Your task to perform on an android device: turn on the 24-hour format for clock Image 0: 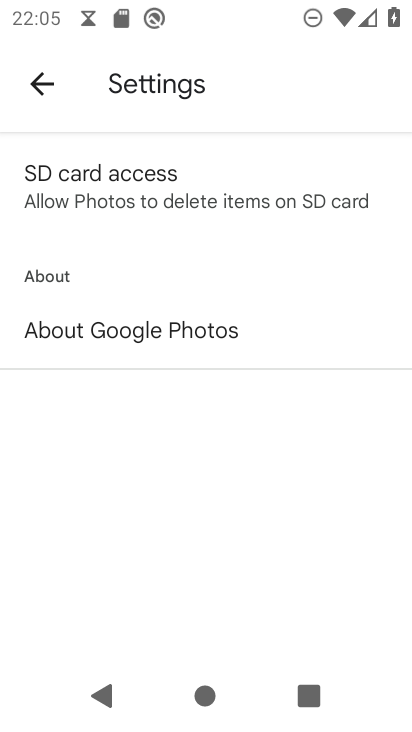
Step 0: press home button
Your task to perform on an android device: turn on the 24-hour format for clock Image 1: 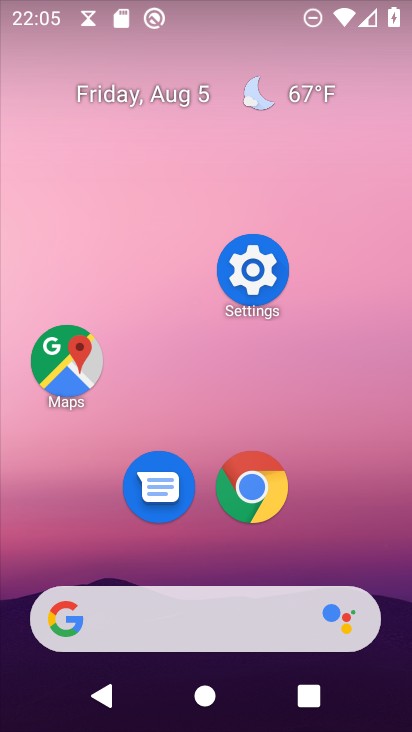
Step 1: drag from (184, 621) to (249, 74)
Your task to perform on an android device: turn on the 24-hour format for clock Image 2: 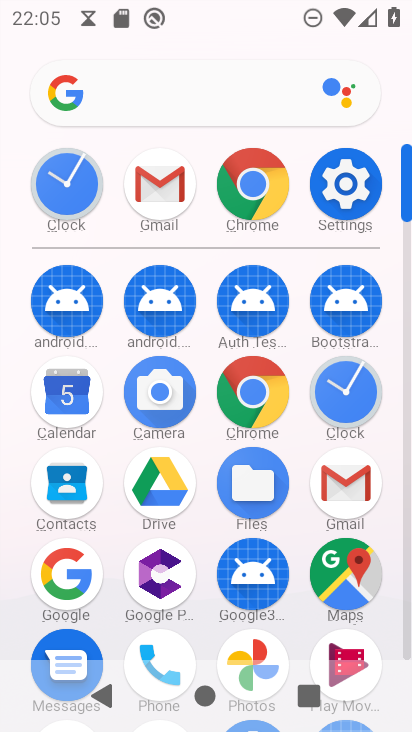
Step 2: click (352, 398)
Your task to perform on an android device: turn on the 24-hour format for clock Image 3: 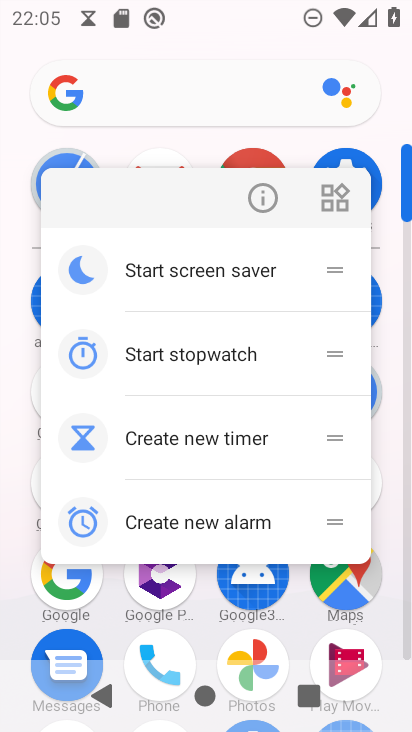
Step 3: click (374, 388)
Your task to perform on an android device: turn on the 24-hour format for clock Image 4: 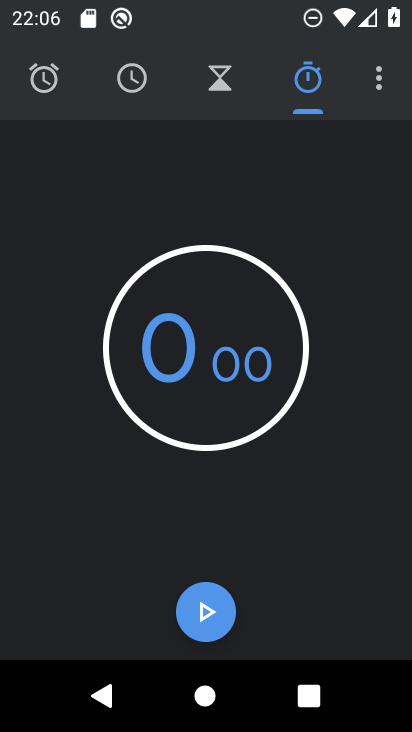
Step 4: click (382, 77)
Your task to perform on an android device: turn on the 24-hour format for clock Image 5: 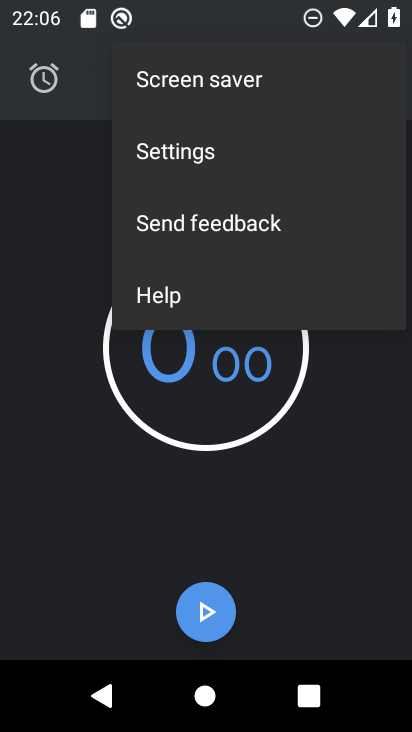
Step 5: click (188, 147)
Your task to perform on an android device: turn on the 24-hour format for clock Image 6: 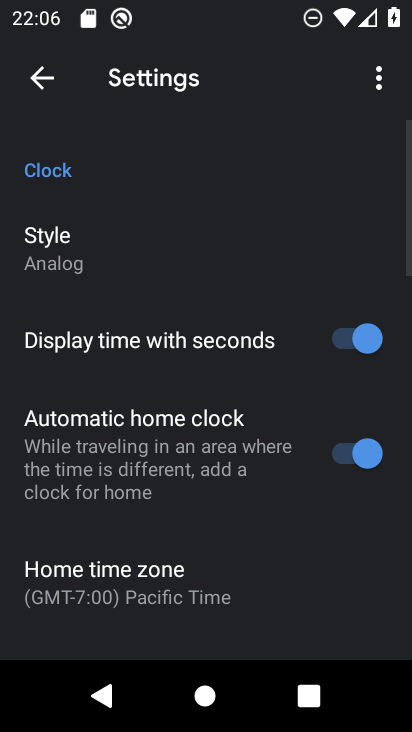
Step 6: drag from (284, 561) to (268, 152)
Your task to perform on an android device: turn on the 24-hour format for clock Image 7: 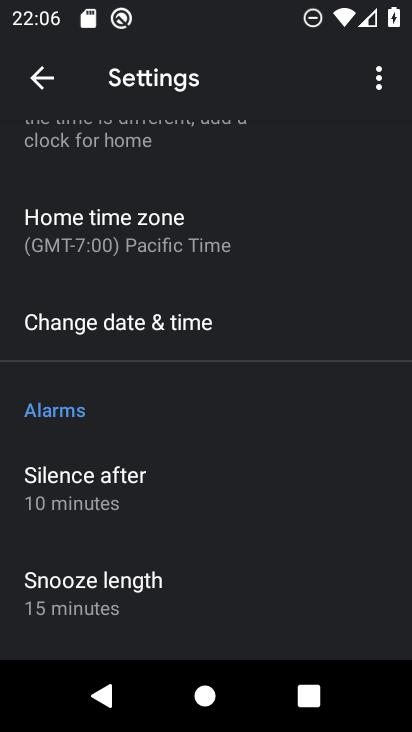
Step 7: click (167, 329)
Your task to perform on an android device: turn on the 24-hour format for clock Image 8: 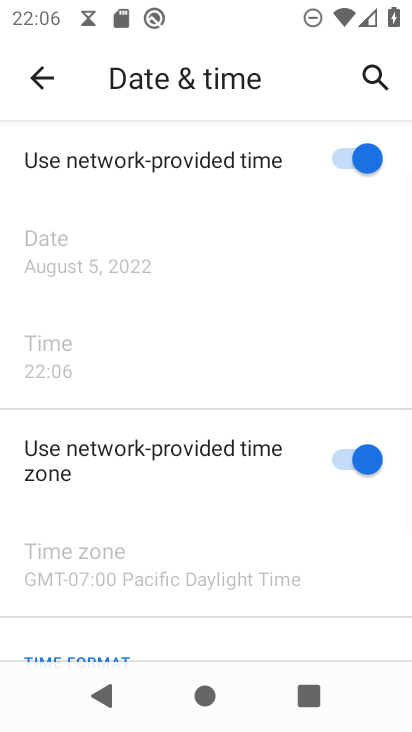
Step 8: task complete